Your task to perform on an android device: find snoozed emails in the gmail app Image 0: 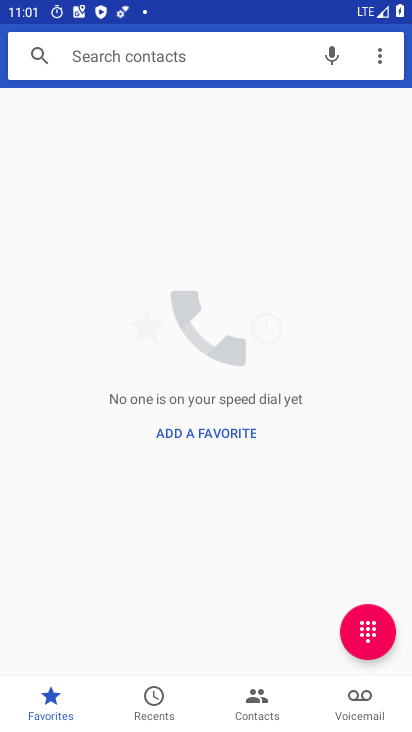
Step 0: press home button
Your task to perform on an android device: find snoozed emails in the gmail app Image 1: 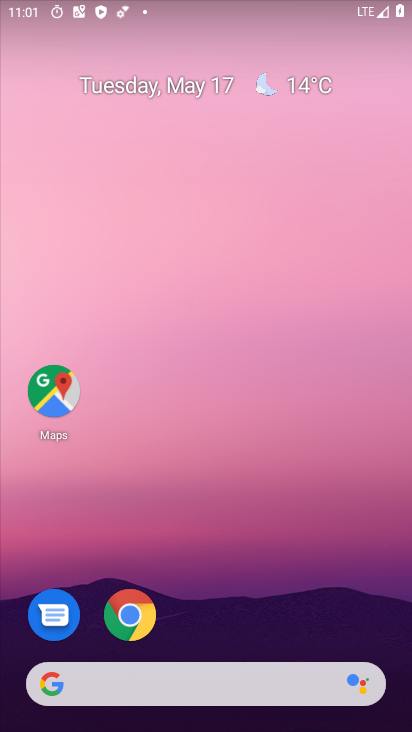
Step 1: drag from (167, 688) to (253, 205)
Your task to perform on an android device: find snoozed emails in the gmail app Image 2: 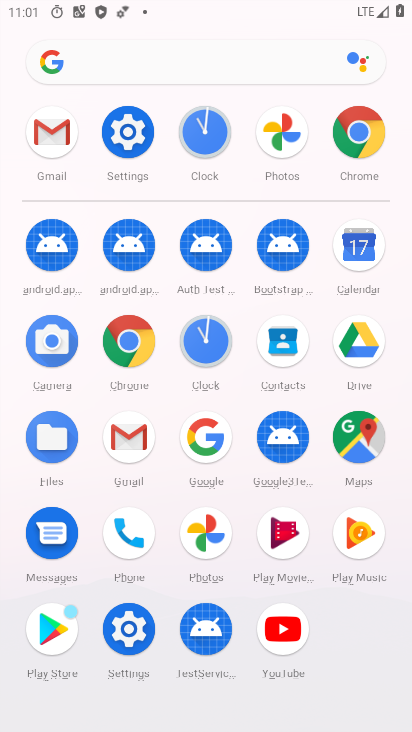
Step 2: click (49, 137)
Your task to perform on an android device: find snoozed emails in the gmail app Image 3: 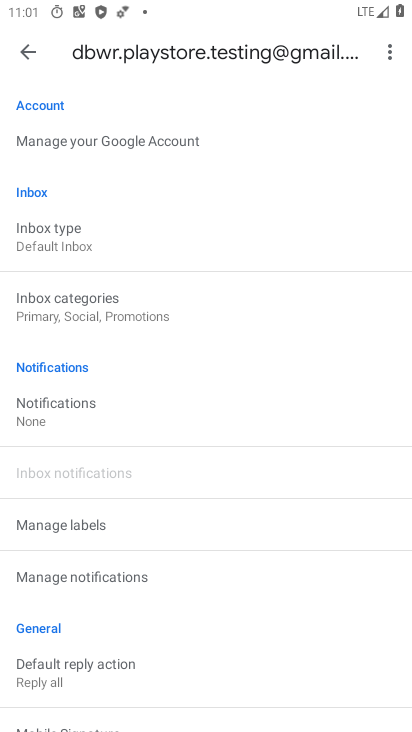
Step 3: click (30, 62)
Your task to perform on an android device: find snoozed emails in the gmail app Image 4: 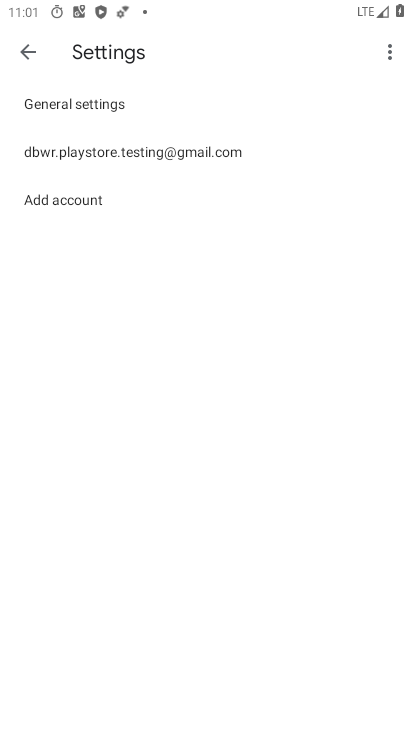
Step 4: click (30, 63)
Your task to perform on an android device: find snoozed emails in the gmail app Image 5: 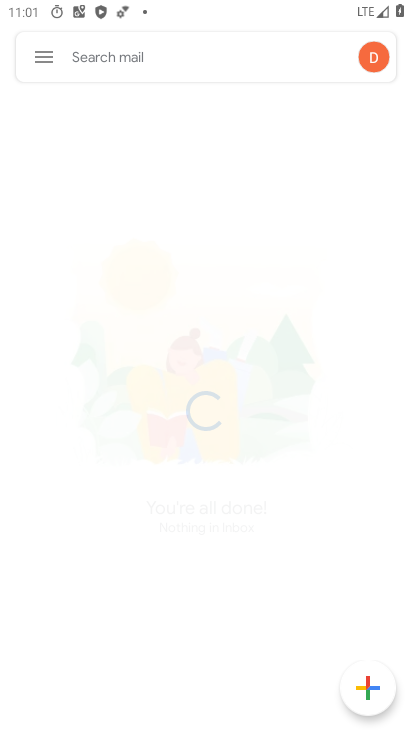
Step 5: click (46, 57)
Your task to perform on an android device: find snoozed emails in the gmail app Image 6: 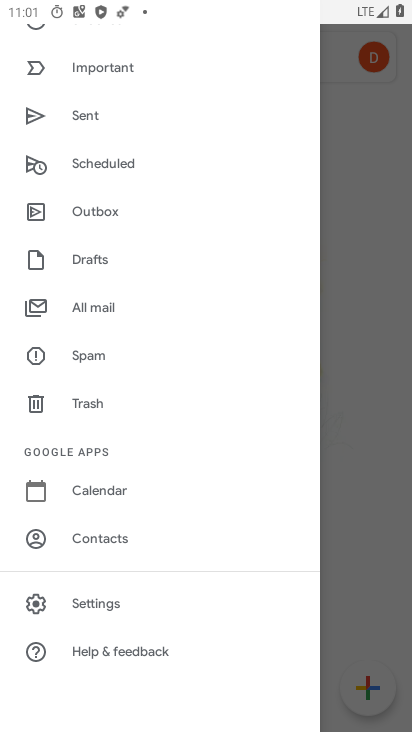
Step 6: drag from (226, 97) to (215, 465)
Your task to perform on an android device: find snoozed emails in the gmail app Image 7: 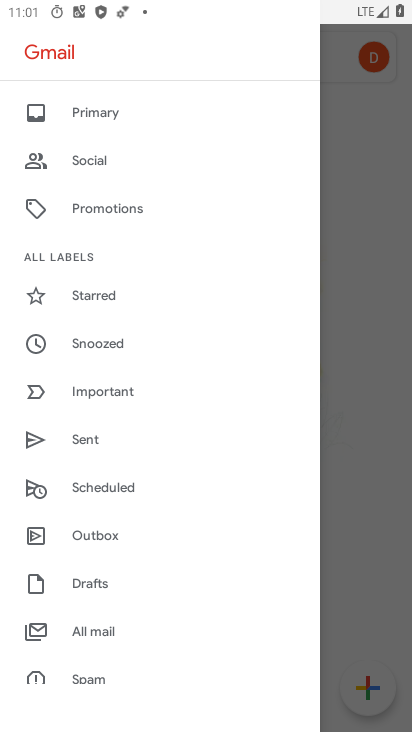
Step 7: click (119, 342)
Your task to perform on an android device: find snoozed emails in the gmail app Image 8: 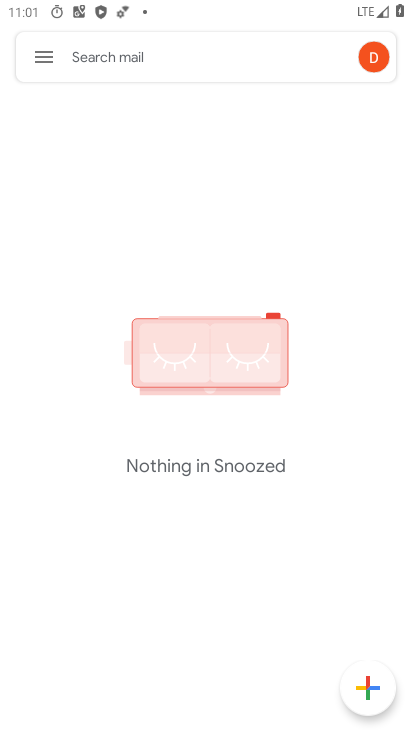
Step 8: task complete